Your task to perform on an android device: toggle pop-ups in chrome Image 0: 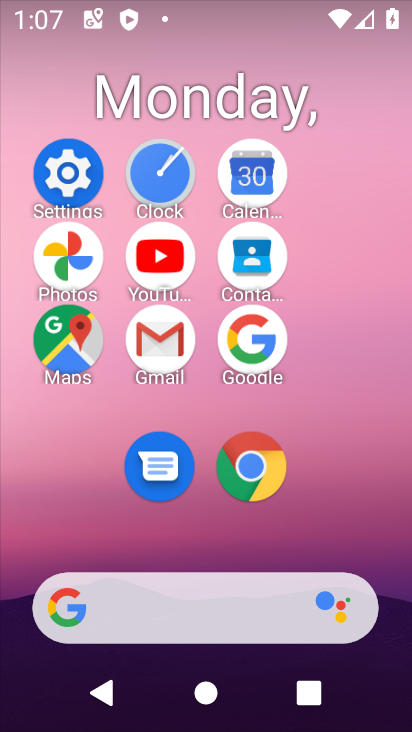
Step 0: click (253, 483)
Your task to perform on an android device: toggle pop-ups in chrome Image 1: 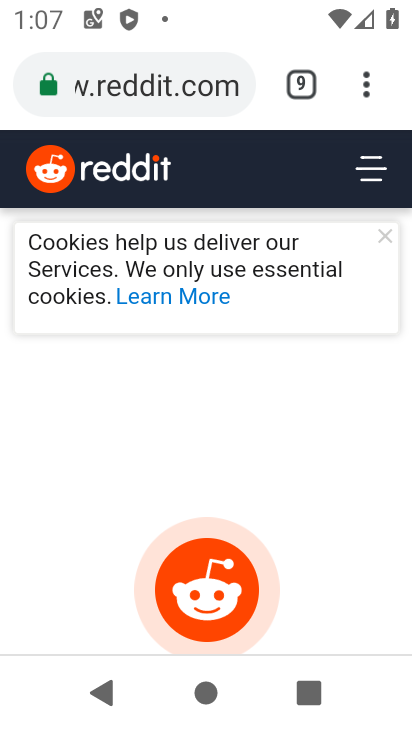
Step 1: click (370, 83)
Your task to perform on an android device: toggle pop-ups in chrome Image 2: 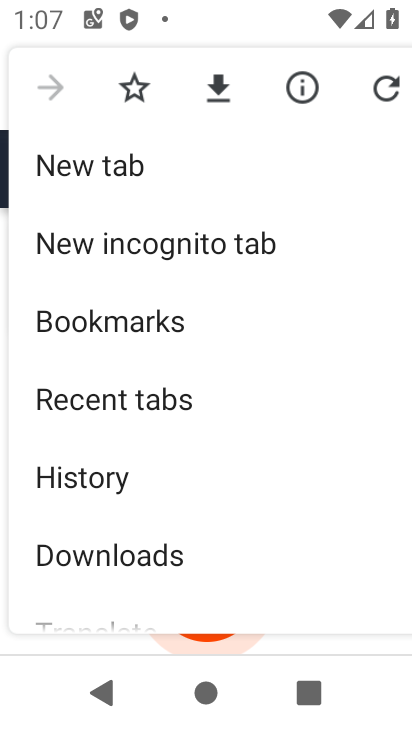
Step 2: drag from (248, 590) to (293, 128)
Your task to perform on an android device: toggle pop-ups in chrome Image 3: 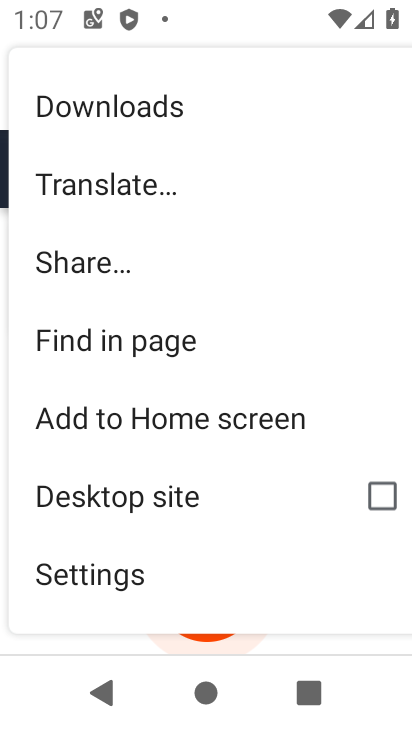
Step 3: click (137, 568)
Your task to perform on an android device: toggle pop-ups in chrome Image 4: 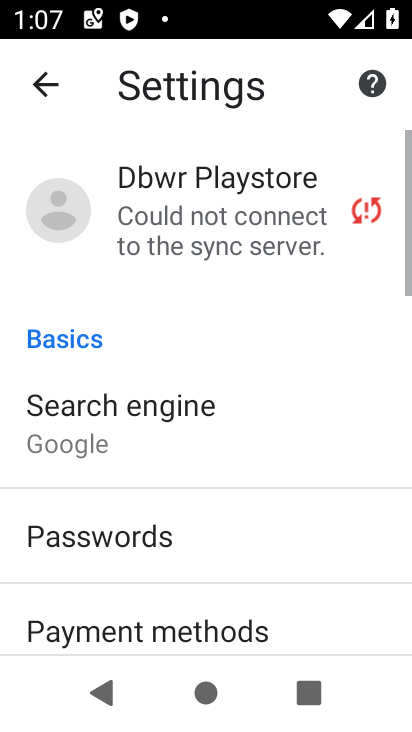
Step 4: drag from (161, 502) to (203, 190)
Your task to perform on an android device: toggle pop-ups in chrome Image 5: 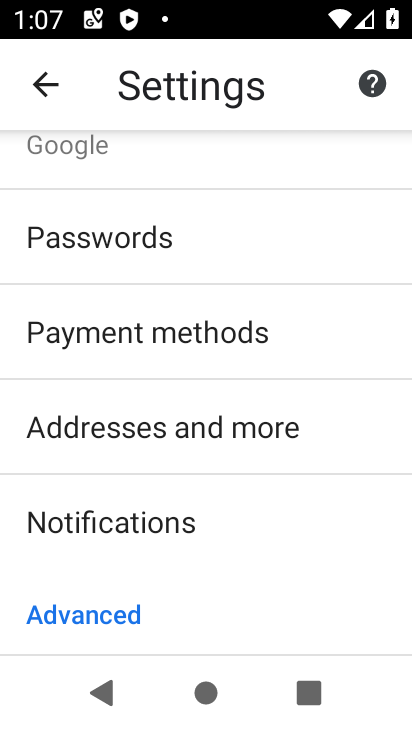
Step 5: drag from (287, 619) to (312, 198)
Your task to perform on an android device: toggle pop-ups in chrome Image 6: 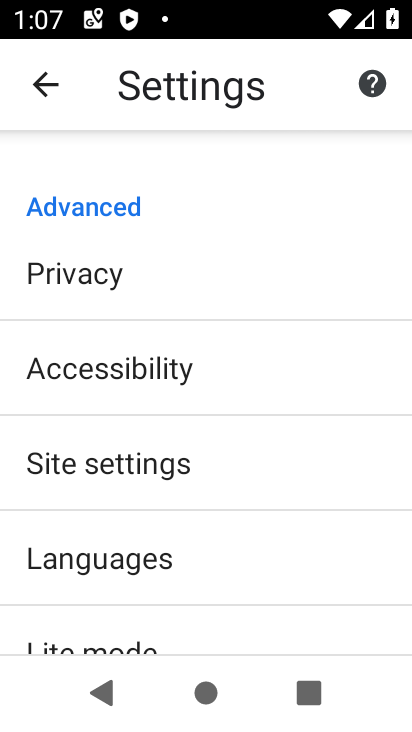
Step 6: click (157, 467)
Your task to perform on an android device: toggle pop-ups in chrome Image 7: 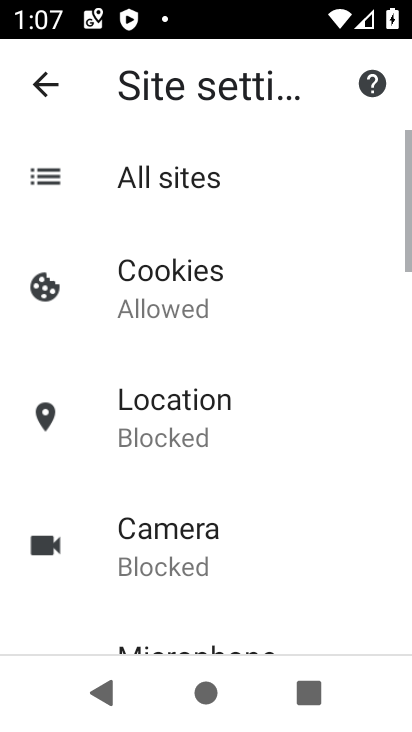
Step 7: drag from (194, 462) to (227, 182)
Your task to perform on an android device: toggle pop-ups in chrome Image 8: 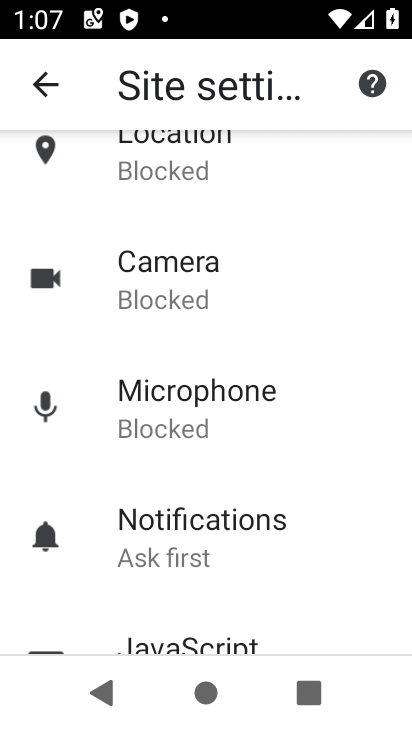
Step 8: drag from (265, 527) to (274, 131)
Your task to perform on an android device: toggle pop-ups in chrome Image 9: 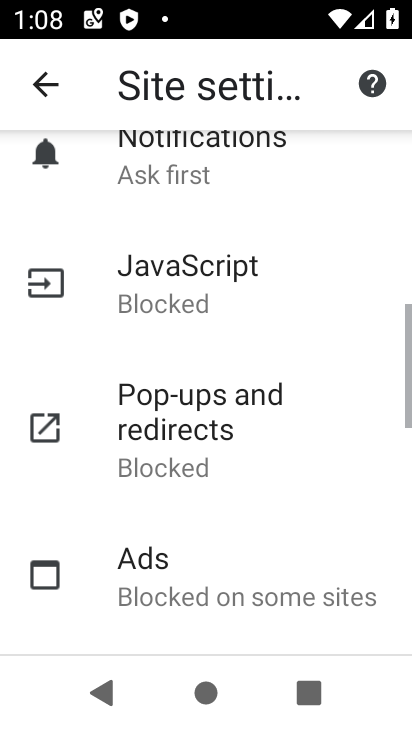
Step 9: click (229, 426)
Your task to perform on an android device: toggle pop-ups in chrome Image 10: 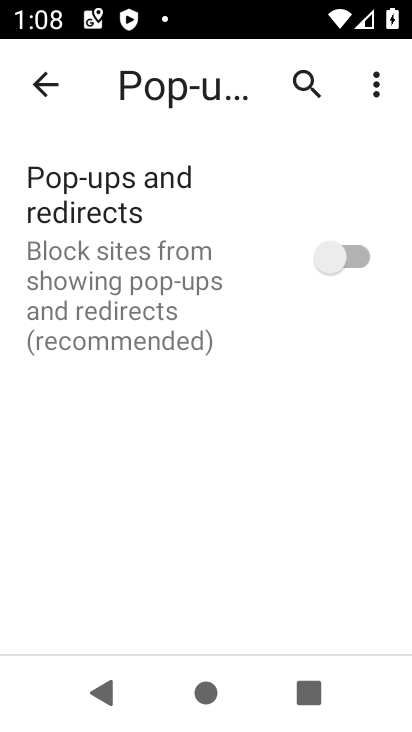
Step 10: click (352, 248)
Your task to perform on an android device: toggle pop-ups in chrome Image 11: 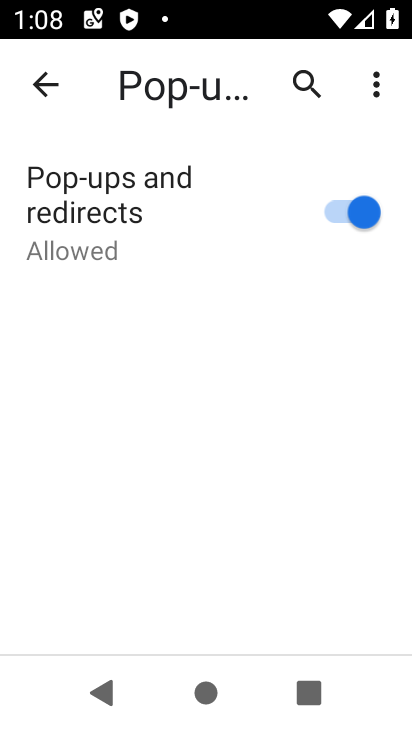
Step 11: task complete